Your task to perform on an android device: see creations saved in the google photos Image 0: 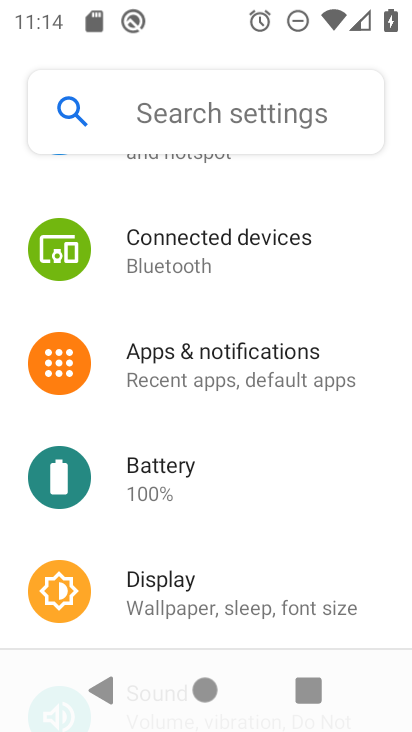
Step 0: press home button
Your task to perform on an android device: see creations saved in the google photos Image 1: 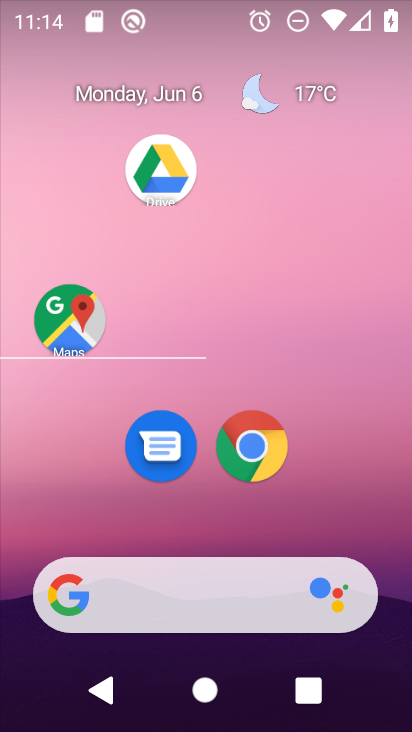
Step 1: drag from (200, 496) to (238, 14)
Your task to perform on an android device: see creations saved in the google photos Image 2: 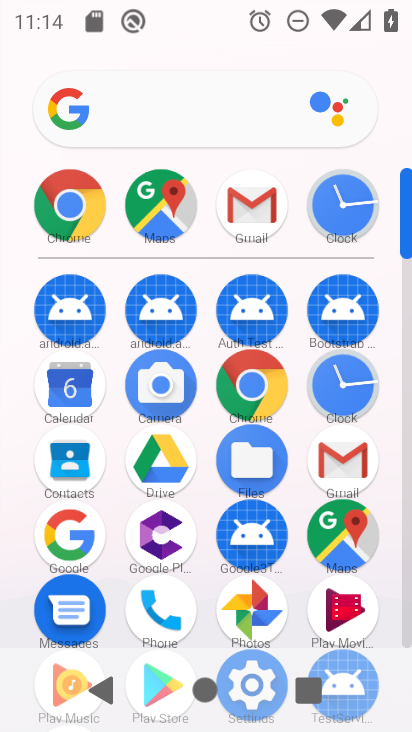
Step 2: click (266, 600)
Your task to perform on an android device: see creations saved in the google photos Image 3: 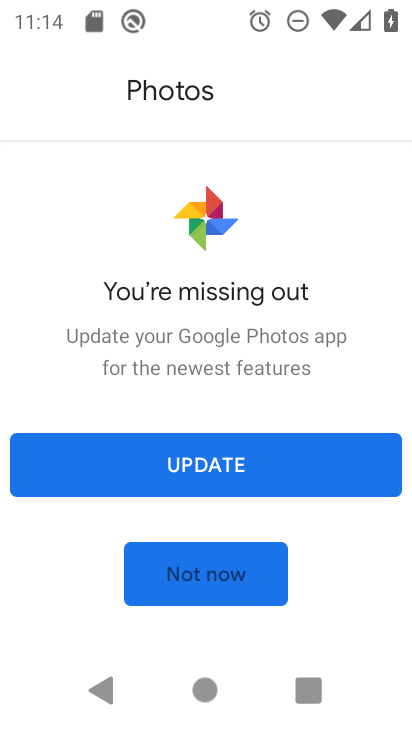
Step 3: click (215, 580)
Your task to perform on an android device: see creations saved in the google photos Image 4: 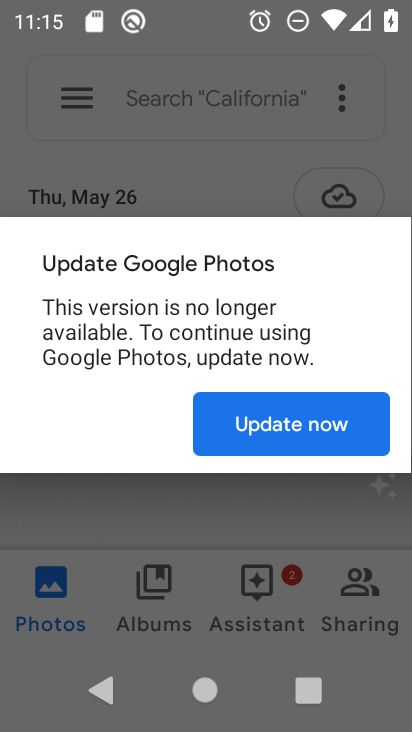
Step 4: click (303, 432)
Your task to perform on an android device: see creations saved in the google photos Image 5: 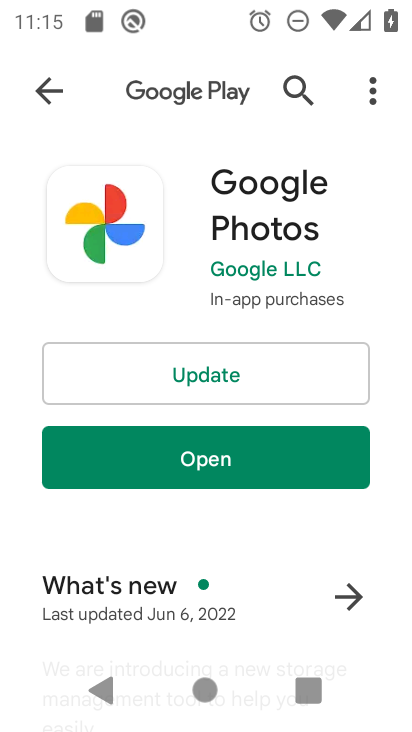
Step 5: click (217, 448)
Your task to perform on an android device: see creations saved in the google photos Image 6: 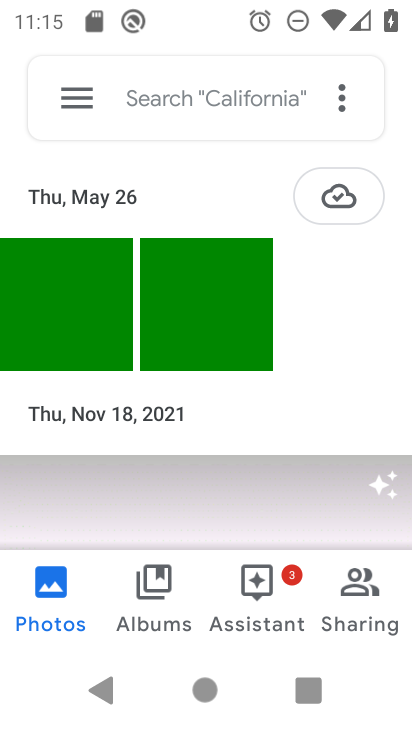
Step 6: task complete